Your task to perform on an android device: install app "Google Find My Device" Image 0: 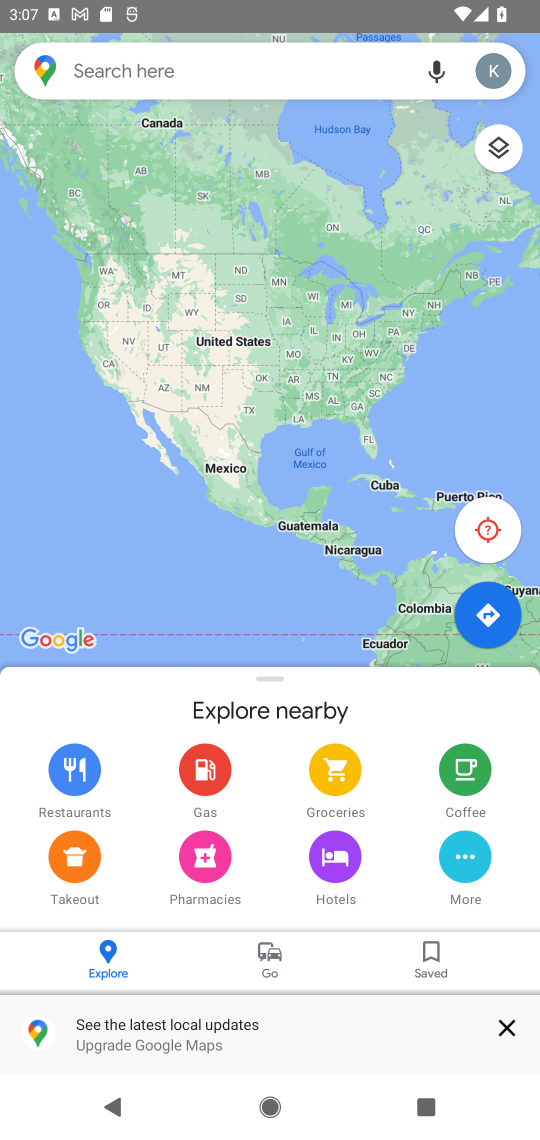
Step 0: press home button
Your task to perform on an android device: install app "Google Find My Device" Image 1: 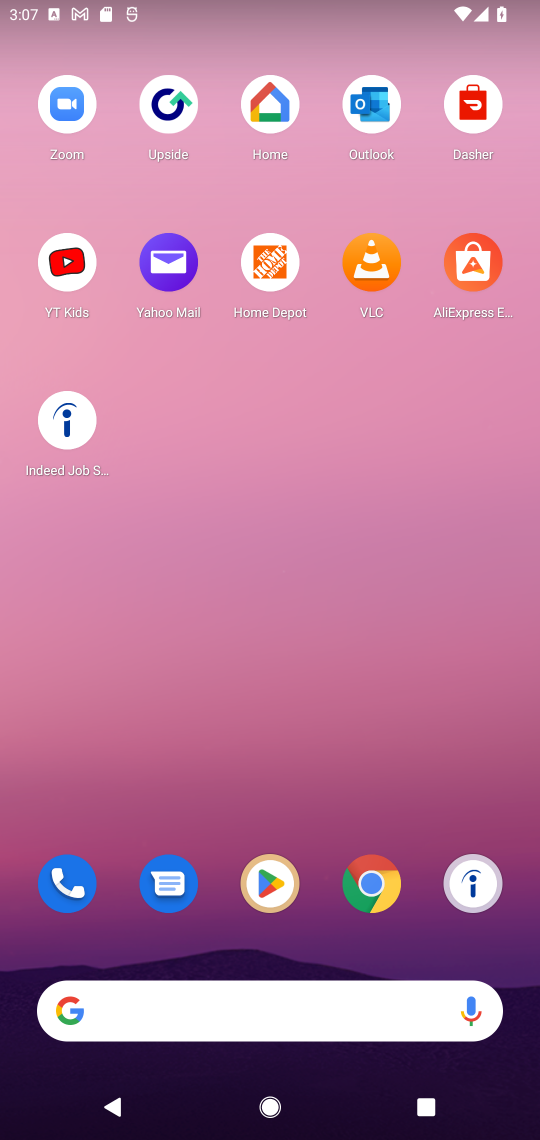
Step 1: drag from (63, 1005) to (2, 281)
Your task to perform on an android device: install app "Google Find My Device" Image 2: 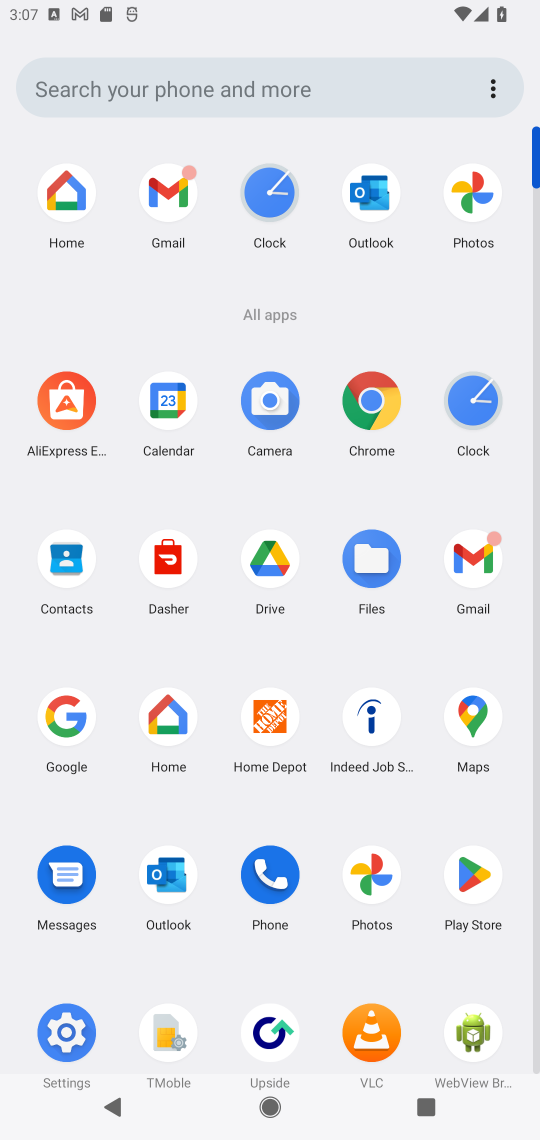
Step 2: click (469, 879)
Your task to perform on an android device: install app "Google Find My Device" Image 3: 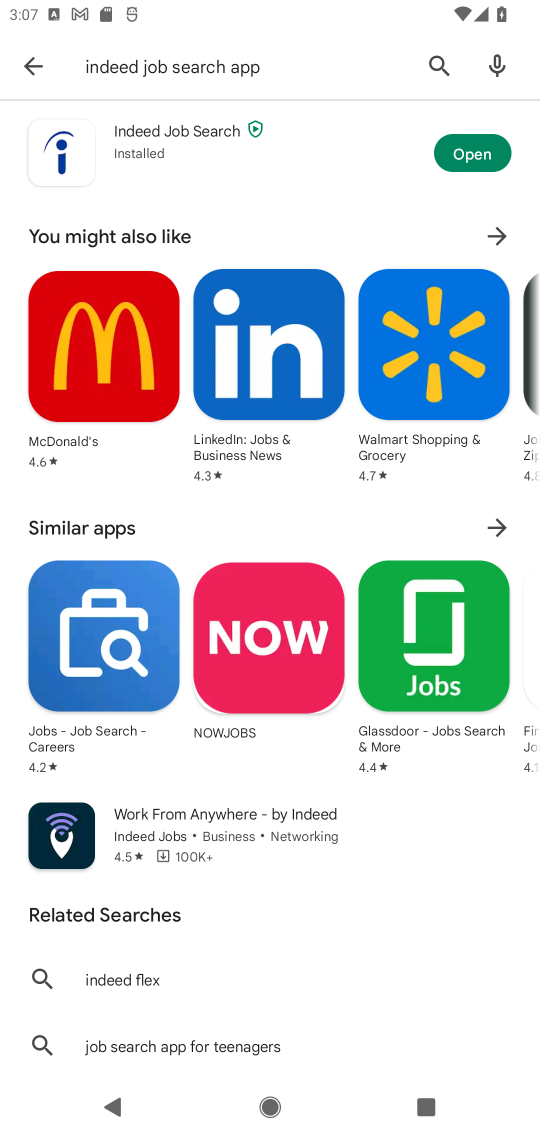
Step 3: click (432, 65)
Your task to perform on an android device: install app "Google Find My Device" Image 4: 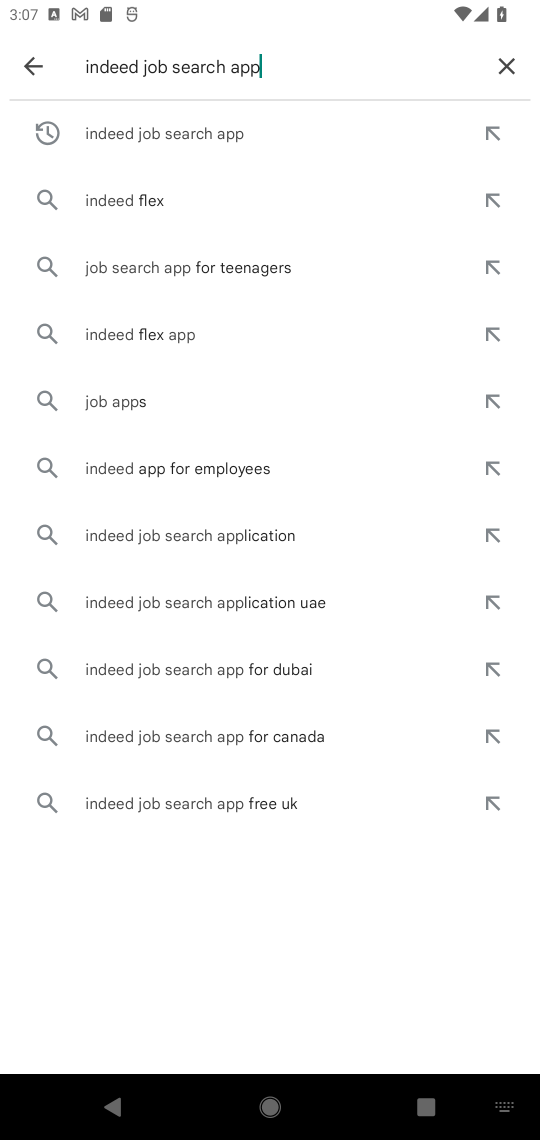
Step 4: click (501, 61)
Your task to perform on an android device: install app "Google Find My Device" Image 5: 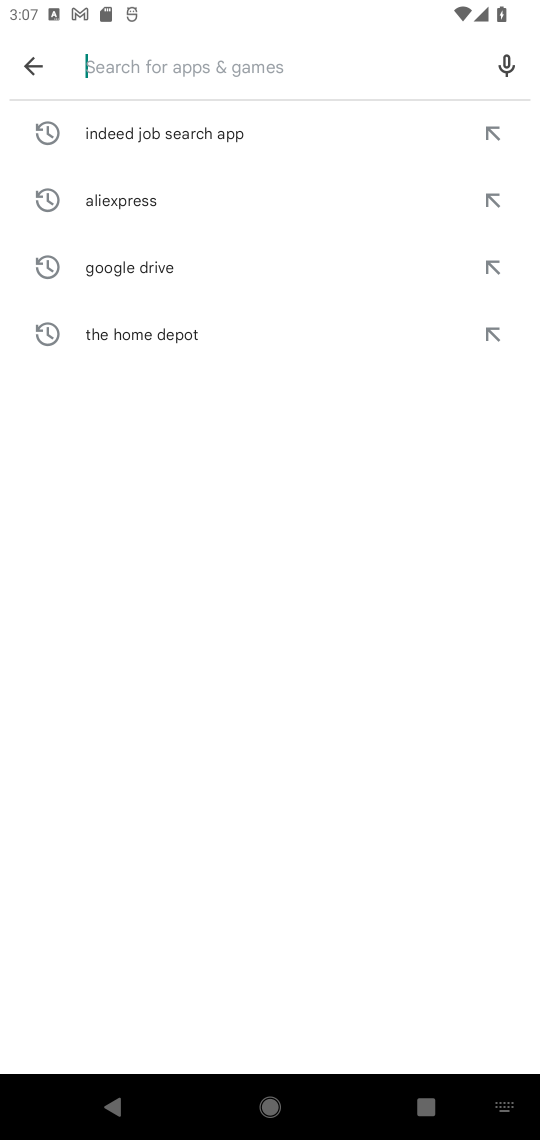
Step 5: type "Google Find My Device"
Your task to perform on an android device: install app "Google Find My Device" Image 6: 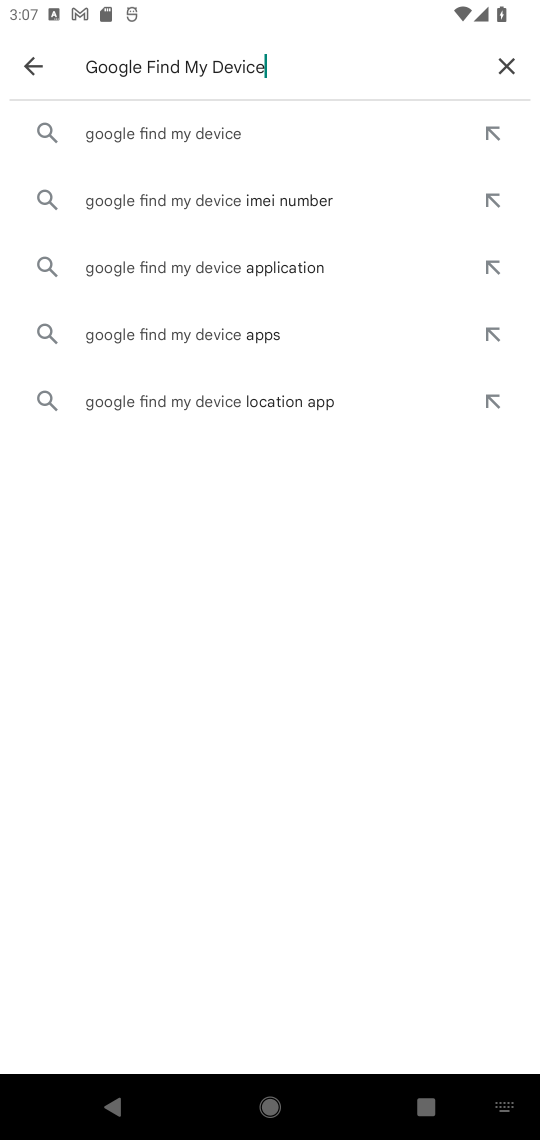
Step 6: click (123, 135)
Your task to perform on an android device: install app "Google Find My Device" Image 7: 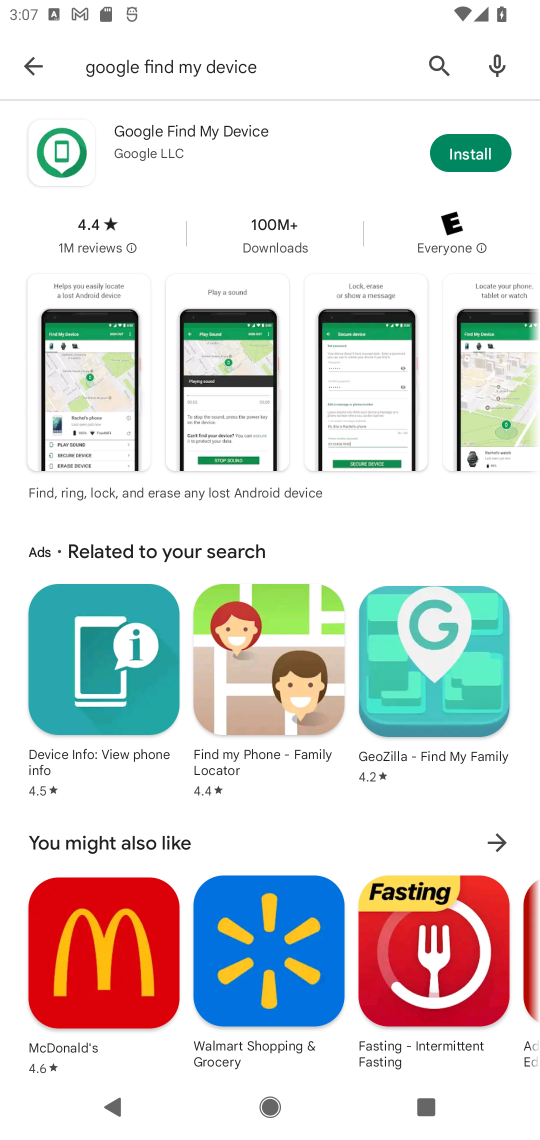
Step 7: click (435, 157)
Your task to perform on an android device: install app "Google Find My Device" Image 8: 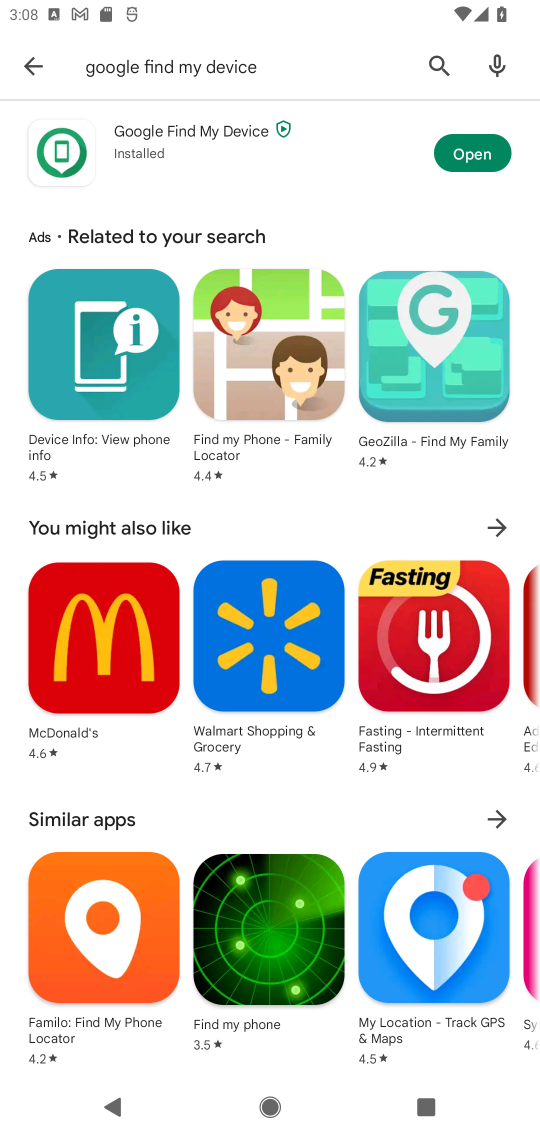
Step 8: click (448, 158)
Your task to perform on an android device: install app "Google Find My Device" Image 9: 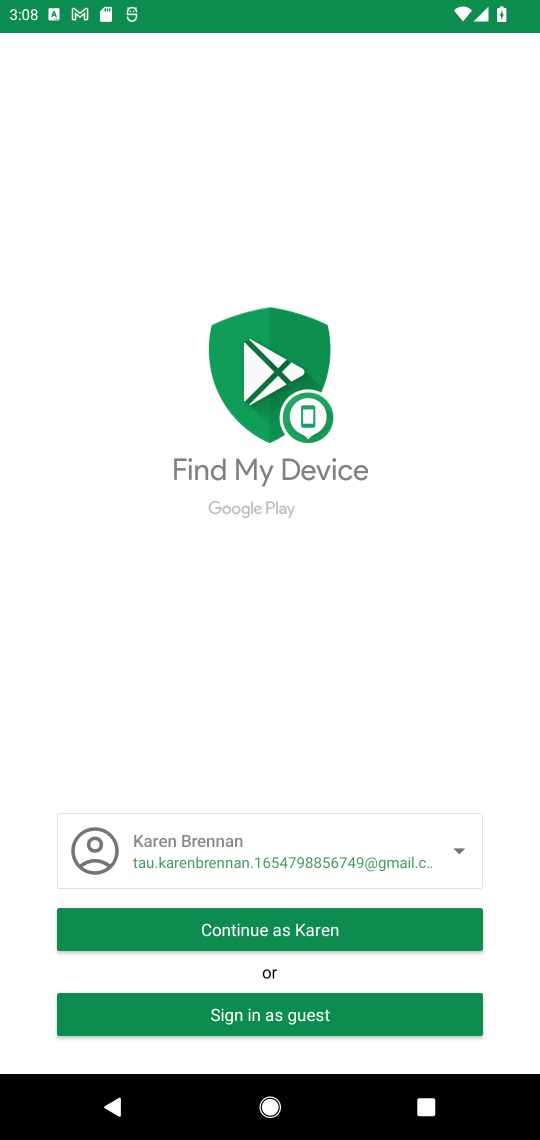
Step 9: task complete